Your task to perform on an android device: Open Android settings Image 0: 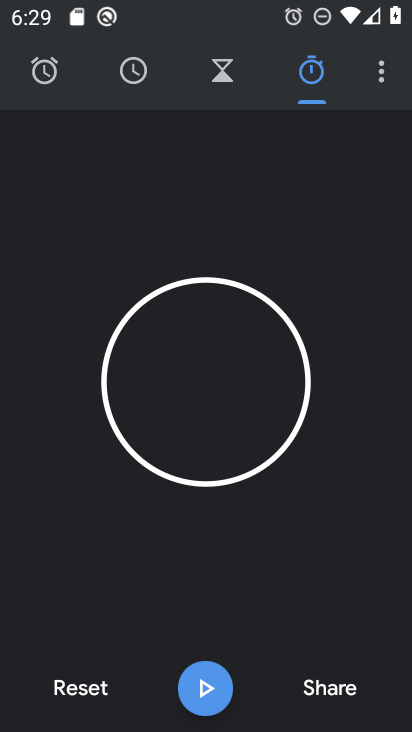
Step 0: press home button
Your task to perform on an android device: Open Android settings Image 1: 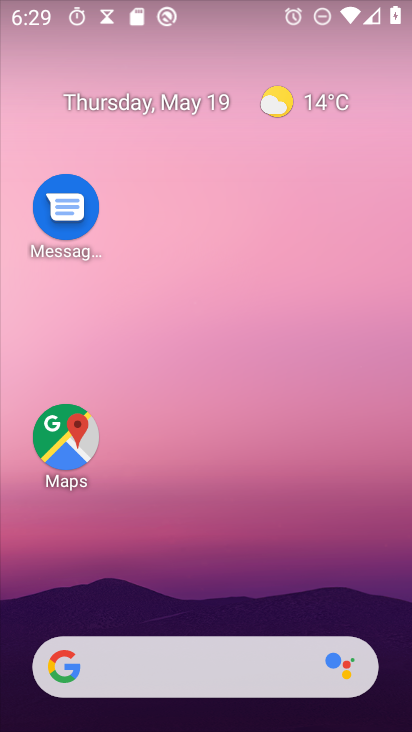
Step 1: drag from (192, 544) to (177, 88)
Your task to perform on an android device: Open Android settings Image 2: 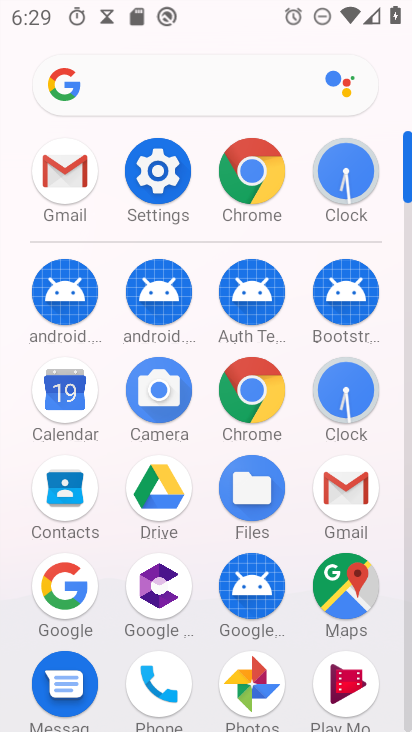
Step 2: click (153, 194)
Your task to perform on an android device: Open Android settings Image 3: 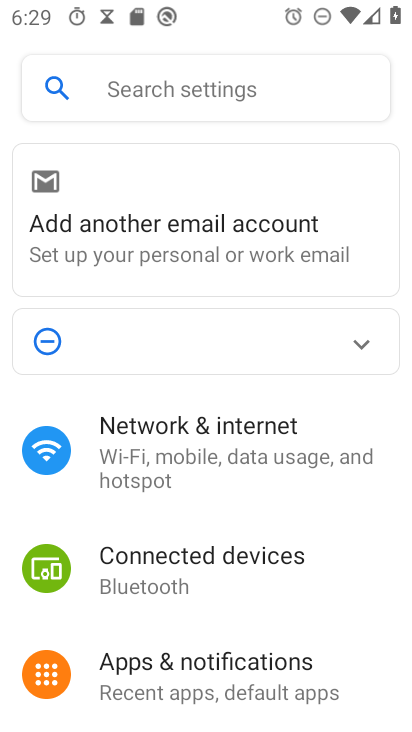
Step 3: drag from (194, 594) to (174, 164)
Your task to perform on an android device: Open Android settings Image 4: 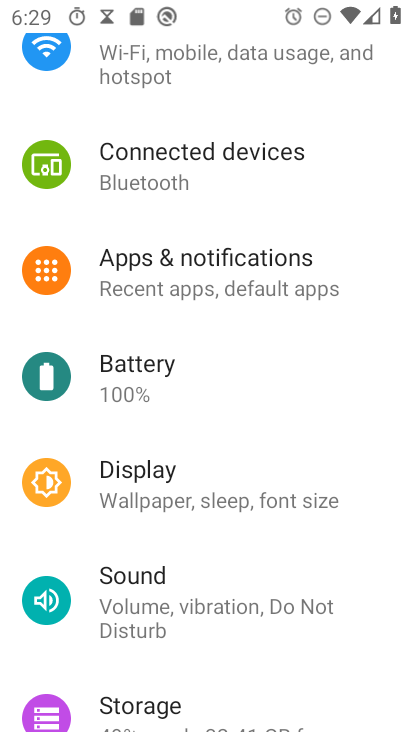
Step 4: drag from (201, 565) to (204, 152)
Your task to perform on an android device: Open Android settings Image 5: 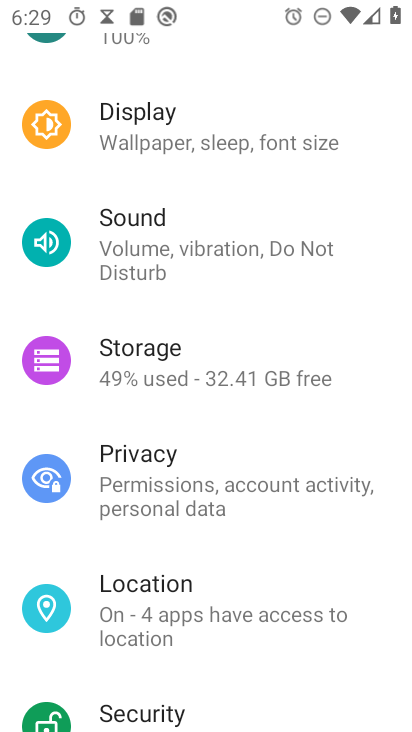
Step 5: drag from (160, 580) to (199, 106)
Your task to perform on an android device: Open Android settings Image 6: 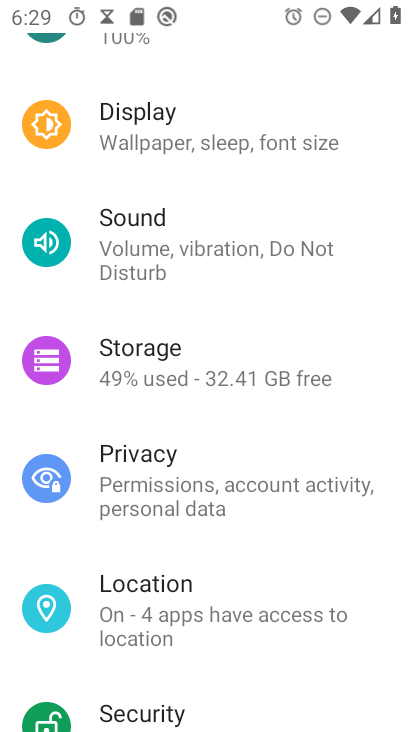
Step 6: drag from (224, 655) to (218, 330)
Your task to perform on an android device: Open Android settings Image 7: 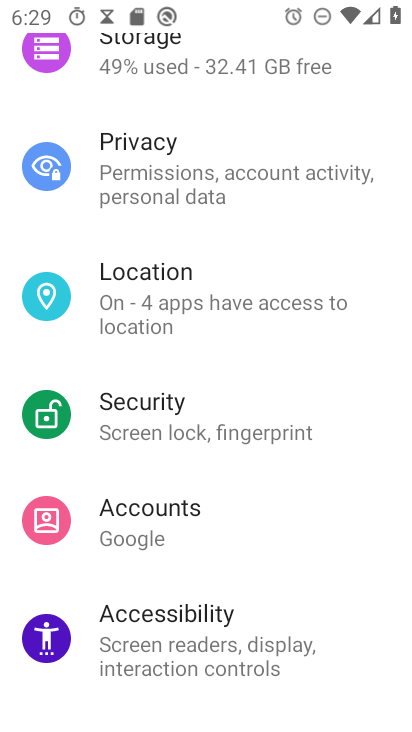
Step 7: drag from (152, 686) to (133, 360)
Your task to perform on an android device: Open Android settings Image 8: 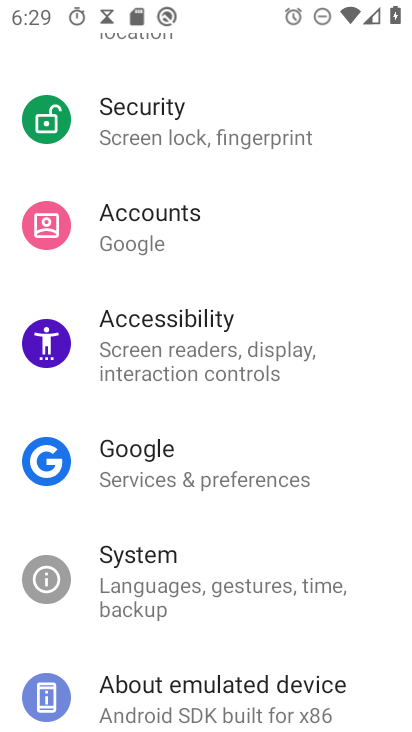
Step 8: click (126, 711)
Your task to perform on an android device: Open Android settings Image 9: 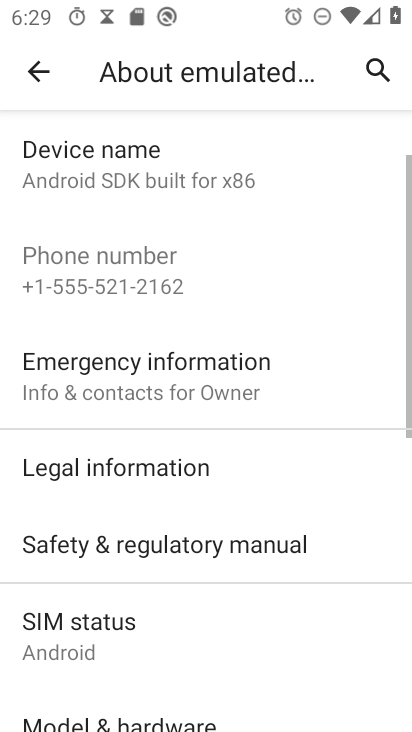
Step 9: drag from (170, 659) to (145, 330)
Your task to perform on an android device: Open Android settings Image 10: 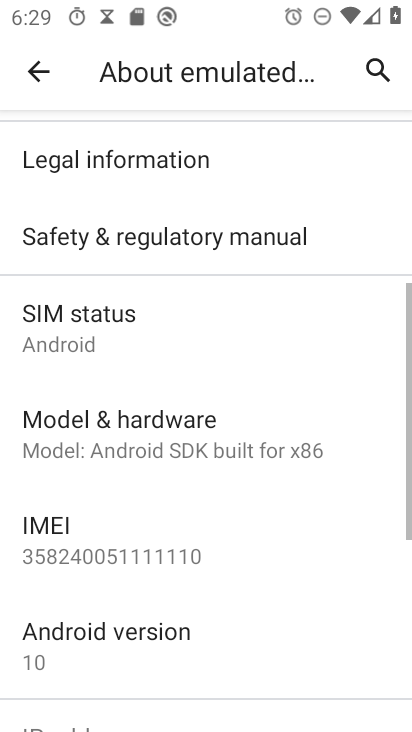
Step 10: click (113, 647)
Your task to perform on an android device: Open Android settings Image 11: 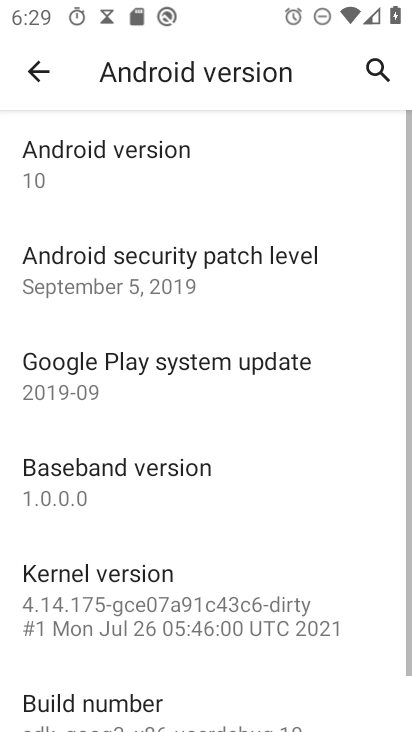
Step 11: task complete